Your task to perform on an android device: turn on priority inbox in the gmail app Image 0: 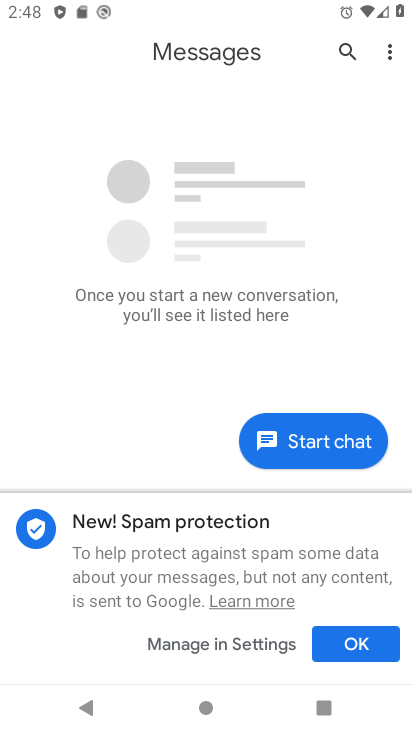
Step 0: press home button
Your task to perform on an android device: turn on priority inbox in the gmail app Image 1: 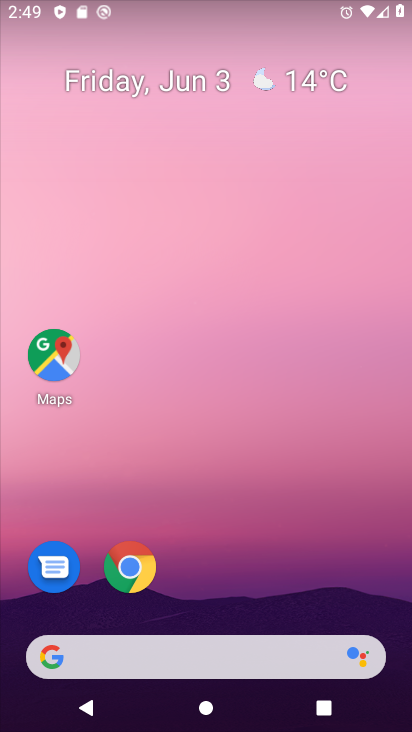
Step 1: drag from (286, 693) to (183, 115)
Your task to perform on an android device: turn on priority inbox in the gmail app Image 2: 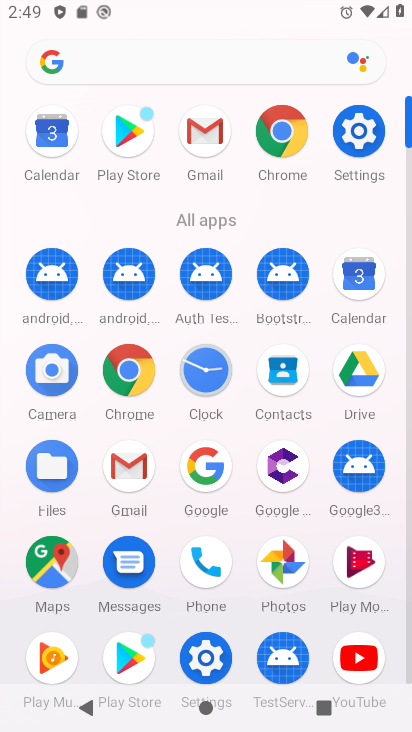
Step 2: click (204, 121)
Your task to perform on an android device: turn on priority inbox in the gmail app Image 3: 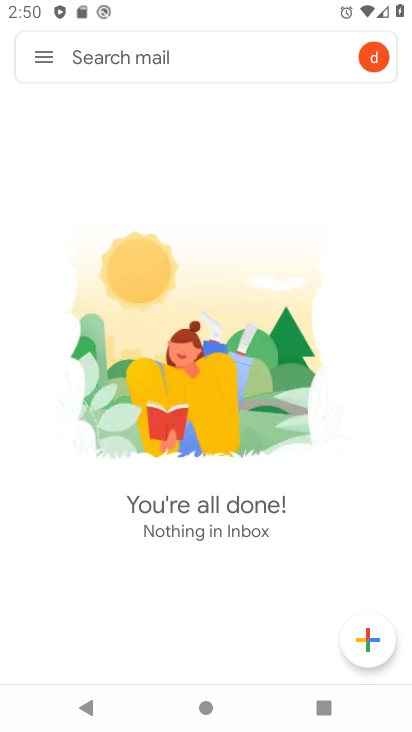
Step 3: click (42, 61)
Your task to perform on an android device: turn on priority inbox in the gmail app Image 4: 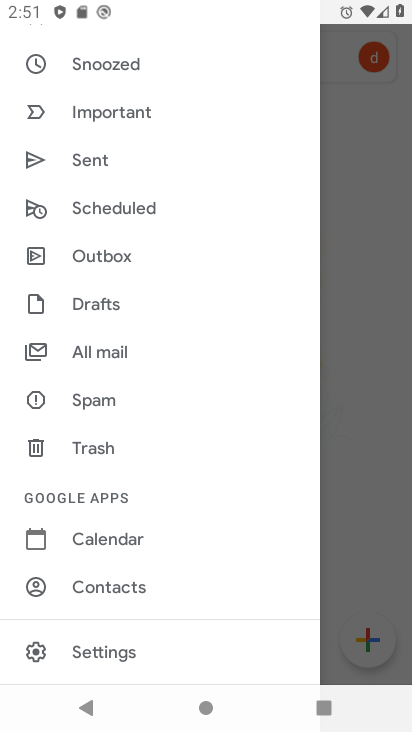
Step 4: click (101, 654)
Your task to perform on an android device: turn on priority inbox in the gmail app Image 5: 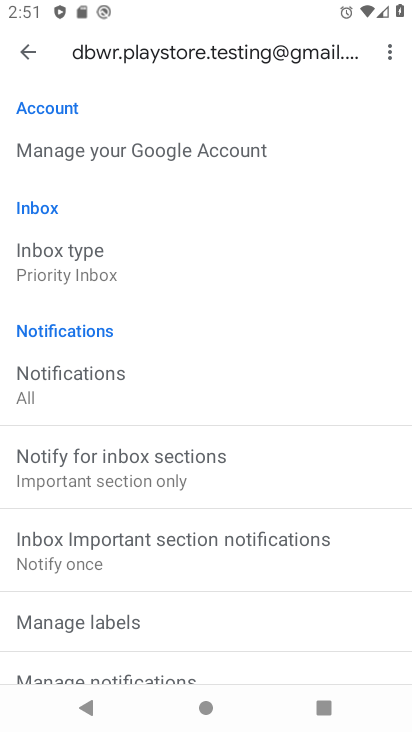
Step 5: click (90, 256)
Your task to perform on an android device: turn on priority inbox in the gmail app Image 6: 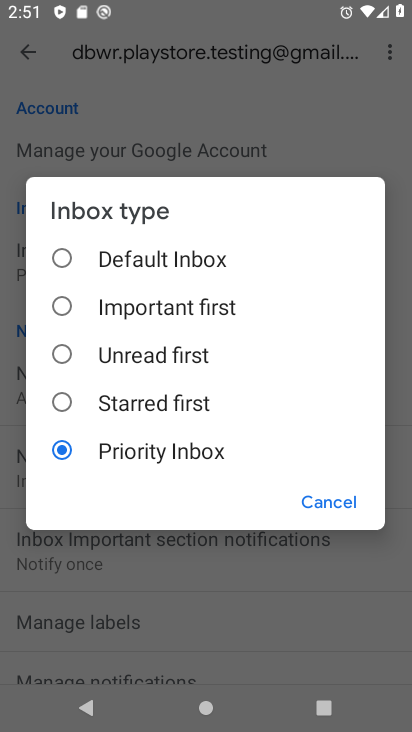
Step 6: task complete